Your task to perform on an android device: see creations saved in the google photos Image 0: 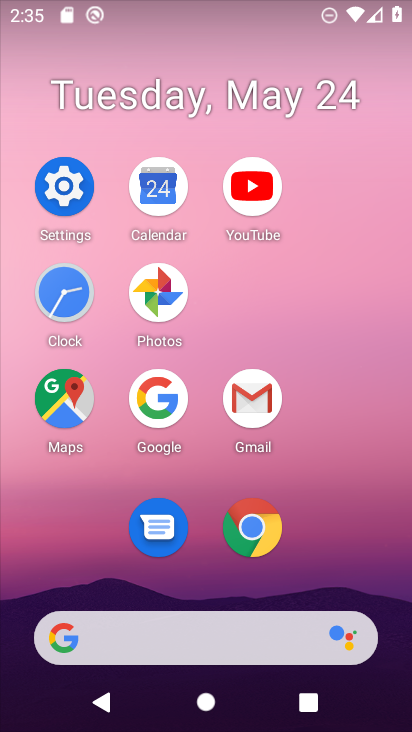
Step 0: click (164, 308)
Your task to perform on an android device: see creations saved in the google photos Image 1: 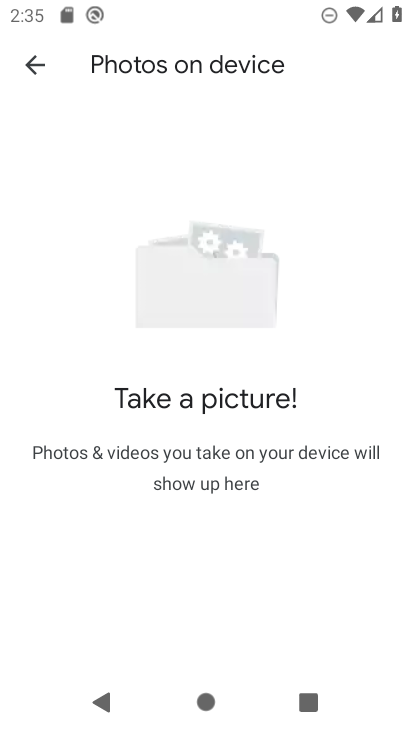
Step 1: click (55, 72)
Your task to perform on an android device: see creations saved in the google photos Image 2: 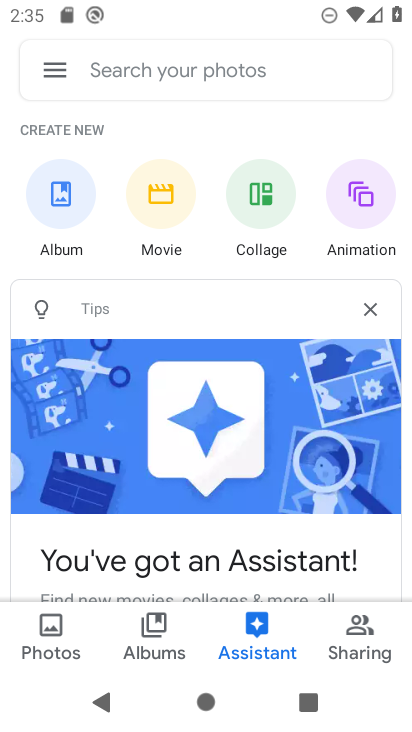
Step 2: click (151, 91)
Your task to perform on an android device: see creations saved in the google photos Image 3: 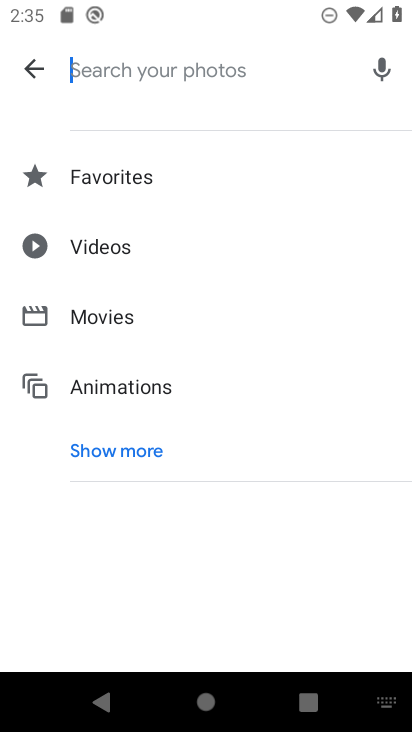
Step 3: click (146, 470)
Your task to perform on an android device: see creations saved in the google photos Image 4: 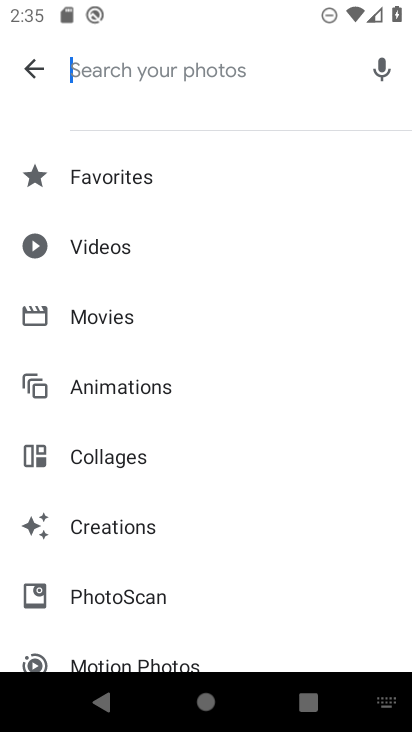
Step 4: click (145, 544)
Your task to perform on an android device: see creations saved in the google photos Image 5: 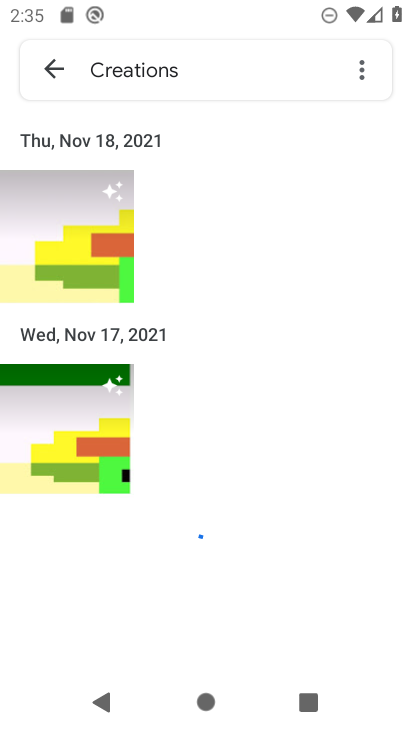
Step 5: task complete